Your task to perform on an android device: Open location settings Image 0: 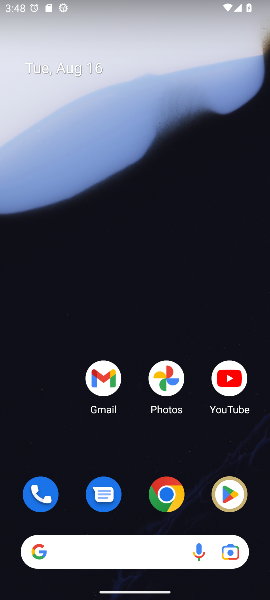
Step 0: drag from (141, 510) to (182, 18)
Your task to perform on an android device: Open location settings Image 1: 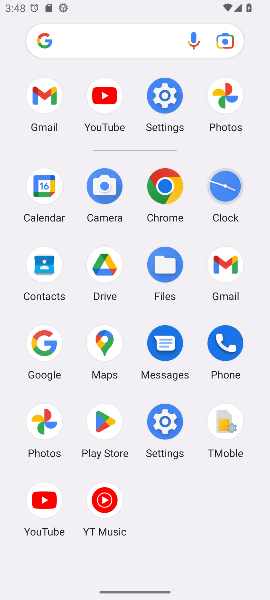
Step 1: click (160, 428)
Your task to perform on an android device: Open location settings Image 2: 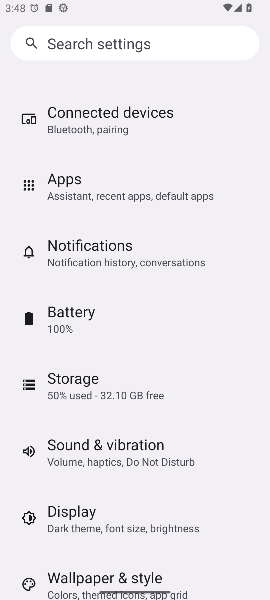
Step 2: drag from (98, 507) to (62, 73)
Your task to perform on an android device: Open location settings Image 3: 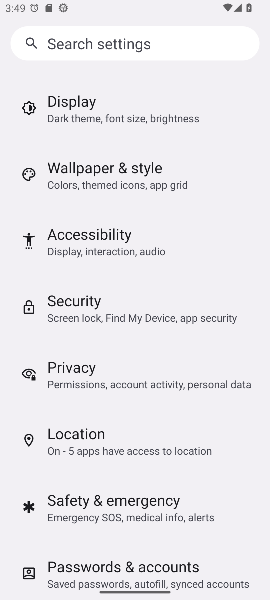
Step 3: click (59, 437)
Your task to perform on an android device: Open location settings Image 4: 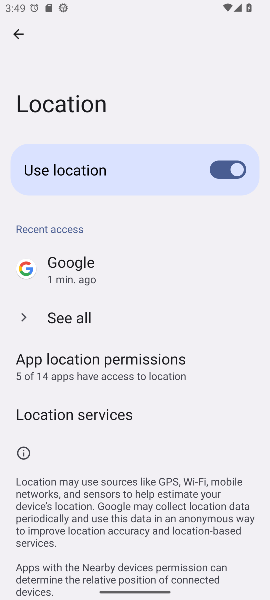
Step 4: task complete